Your task to perform on an android device: toggle data saver in the chrome app Image 0: 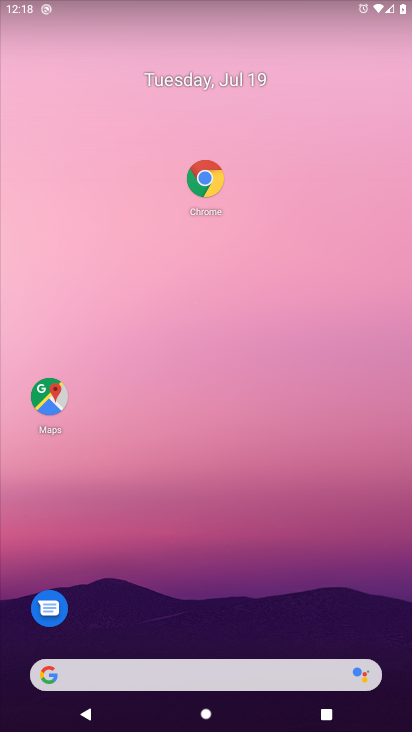
Step 0: drag from (141, 426) to (185, 252)
Your task to perform on an android device: toggle data saver in the chrome app Image 1: 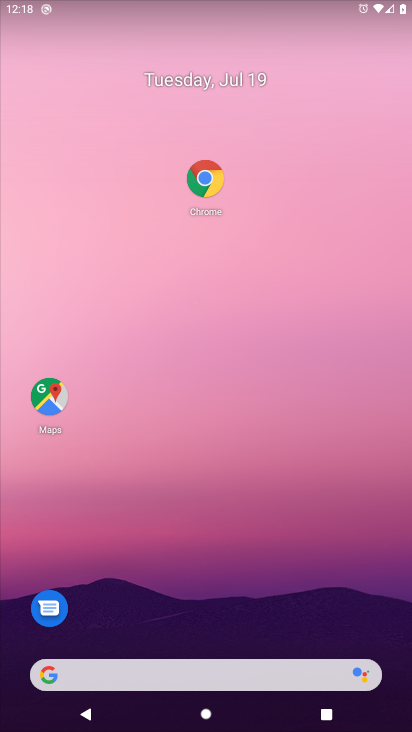
Step 1: drag from (187, 387) to (276, 26)
Your task to perform on an android device: toggle data saver in the chrome app Image 2: 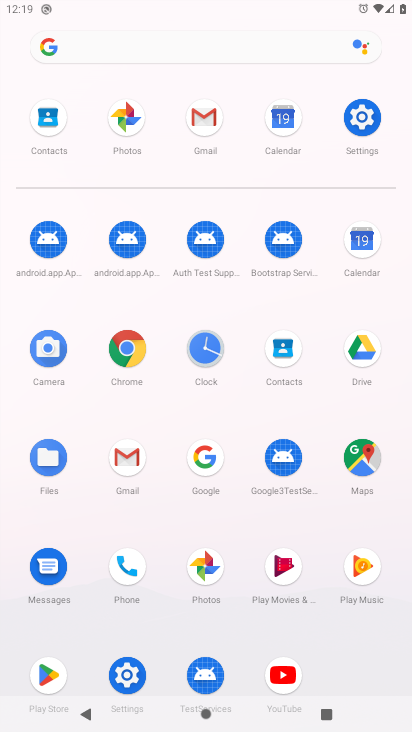
Step 2: click (136, 359)
Your task to perform on an android device: toggle data saver in the chrome app Image 3: 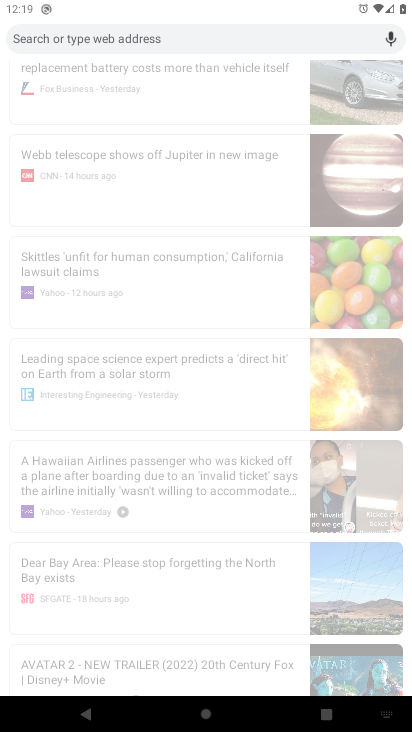
Step 3: click (102, 26)
Your task to perform on an android device: toggle data saver in the chrome app Image 4: 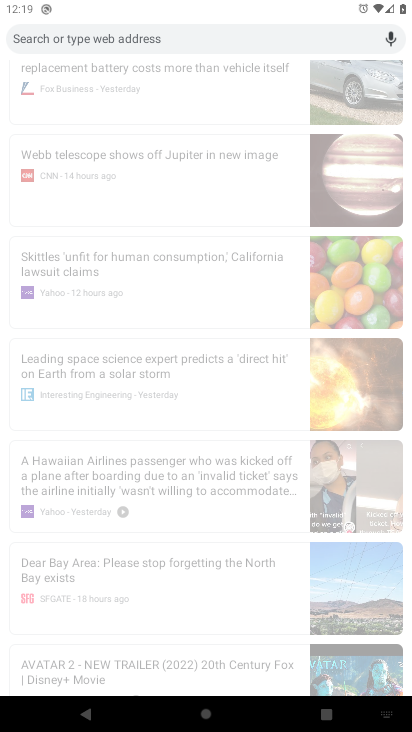
Step 4: click (76, 38)
Your task to perform on an android device: toggle data saver in the chrome app Image 5: 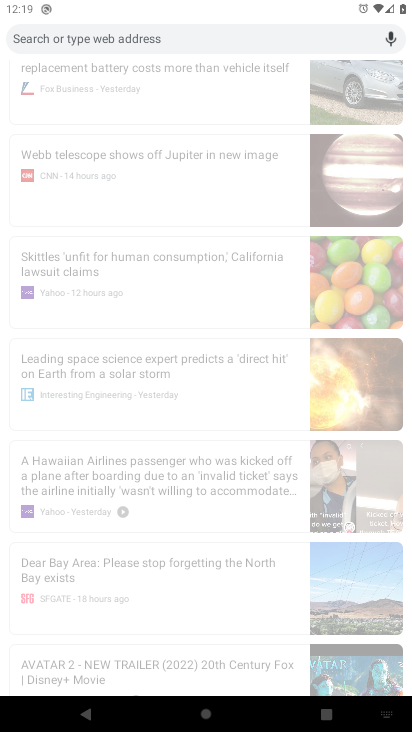
Step 5: task complete